Your task to perform on an android device: snooze an email in the gmail app Image 0: 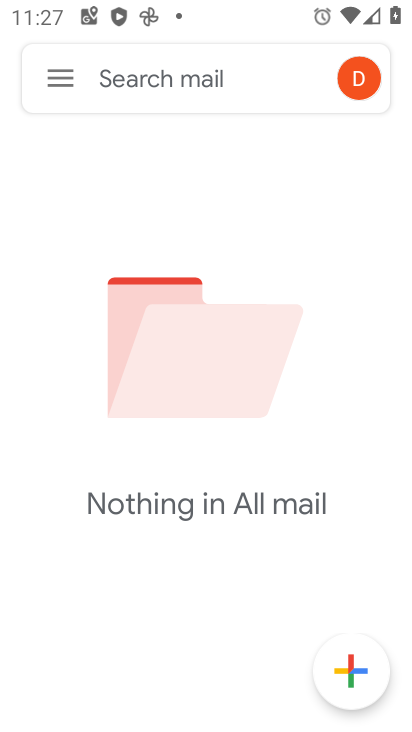
Step 0: press home button
Your task to perform on an android device: snooze an email in the gmail app Image 1: 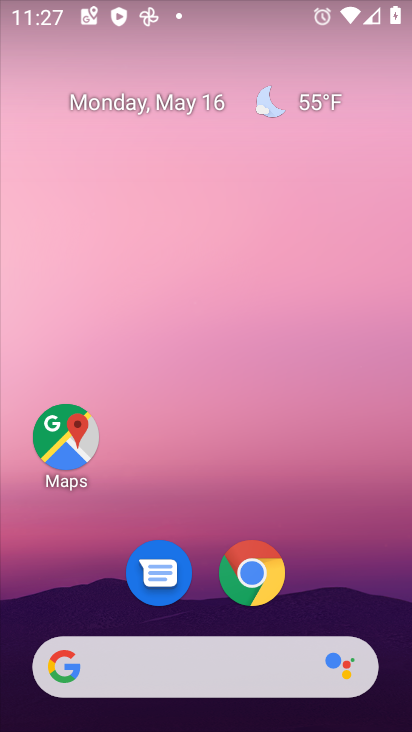
Step 1: drag from (337, 568) to (277, 167)
Your task to perform on an android device: snooze an email in the gmail app Image 2: 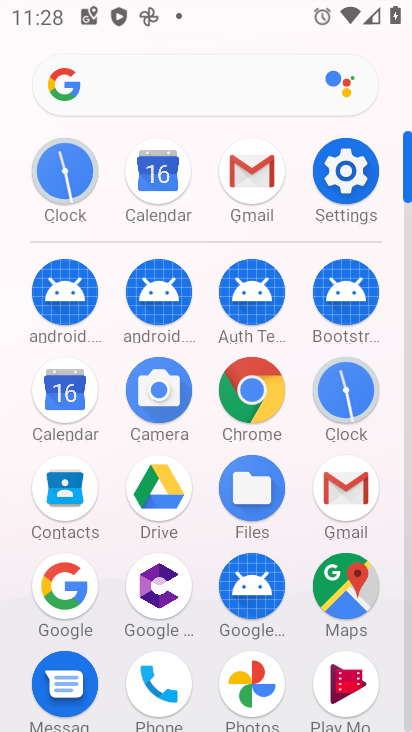
Step 2: click (343, 499)
Your task to perform on an android device: snooze an email in the gmail app Image 3: 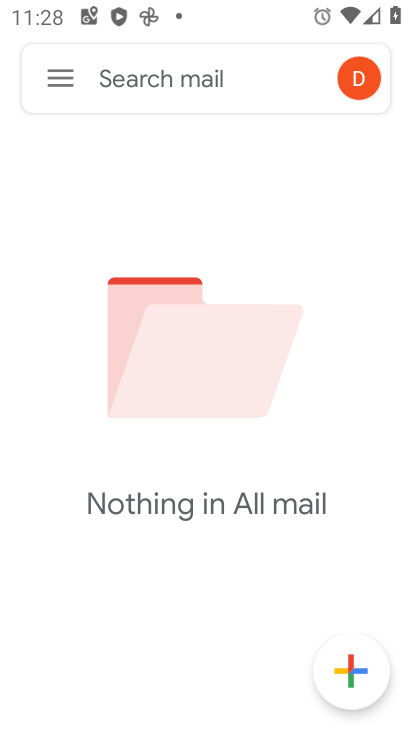
Step 3: click (66, 93)
Your task to perform on an android device: snooze an email in the gmail app Image 4: 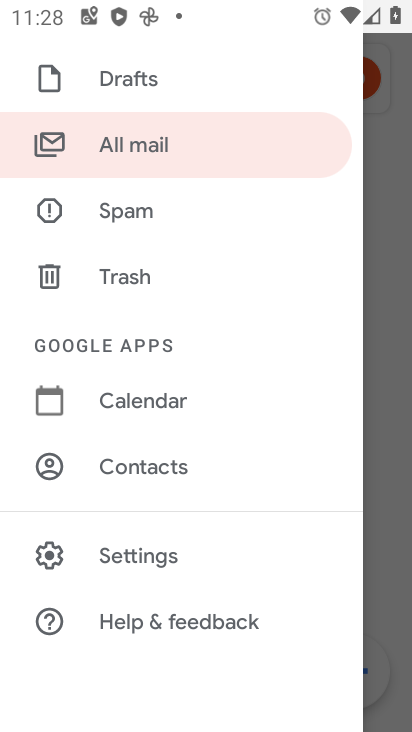
Step 4: click (112, 144)
Your task to perform on an android device: snooze an email in the gmail app Image 5: 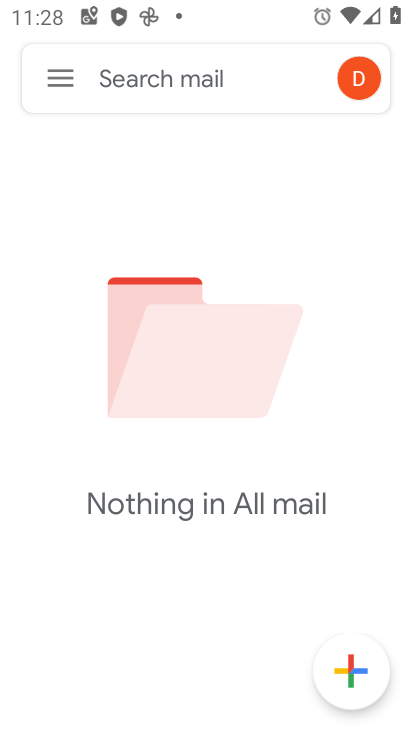
Step 5: task complete